Your task to perform on an android device: Empty the shopping cart on costco. Search for "bose quietcomfort 35" on costco, select the first entry, and add it to the cart. Image 0: 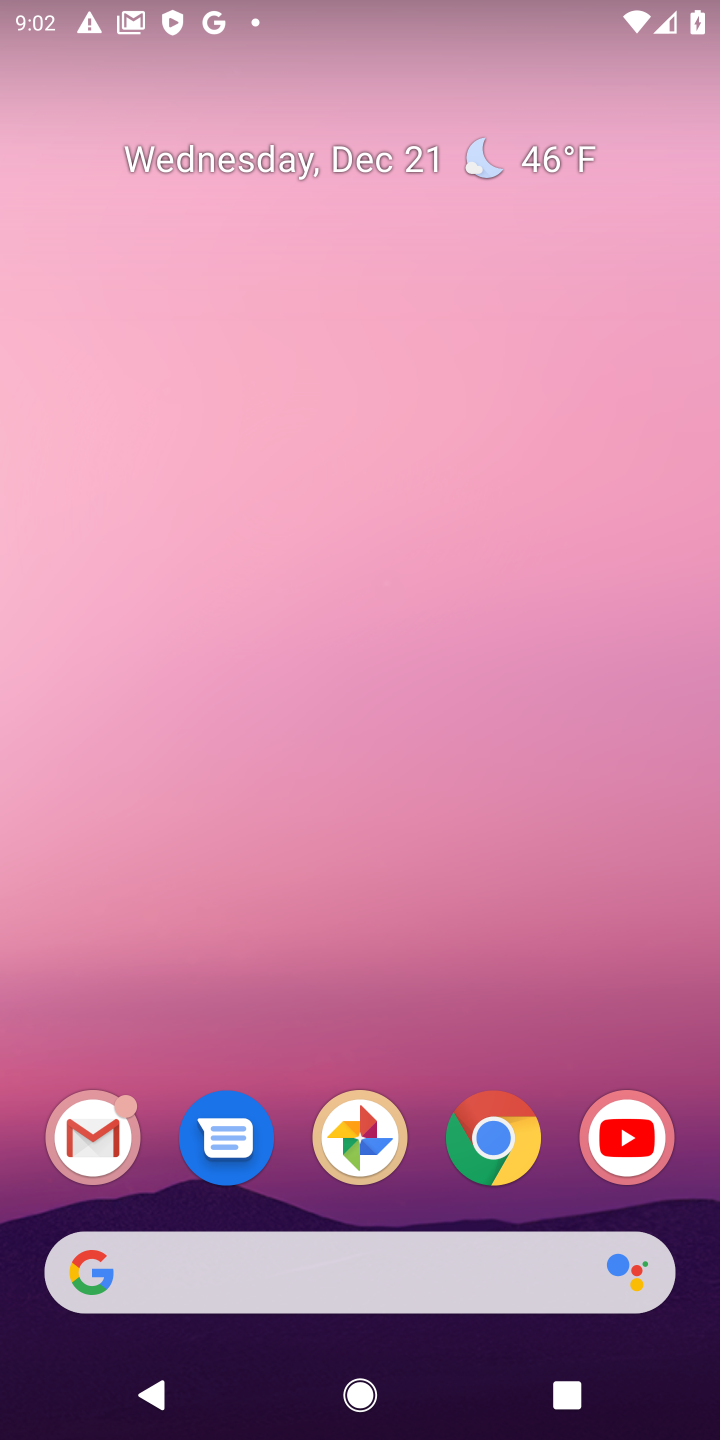
Step 0: click (484, 1138)
Your task to perform on an android device: Empty the shopping cart on costco. Search for "bose quietcomfort 35" on costco, select the first entry, and add it to the cart. Image 1: 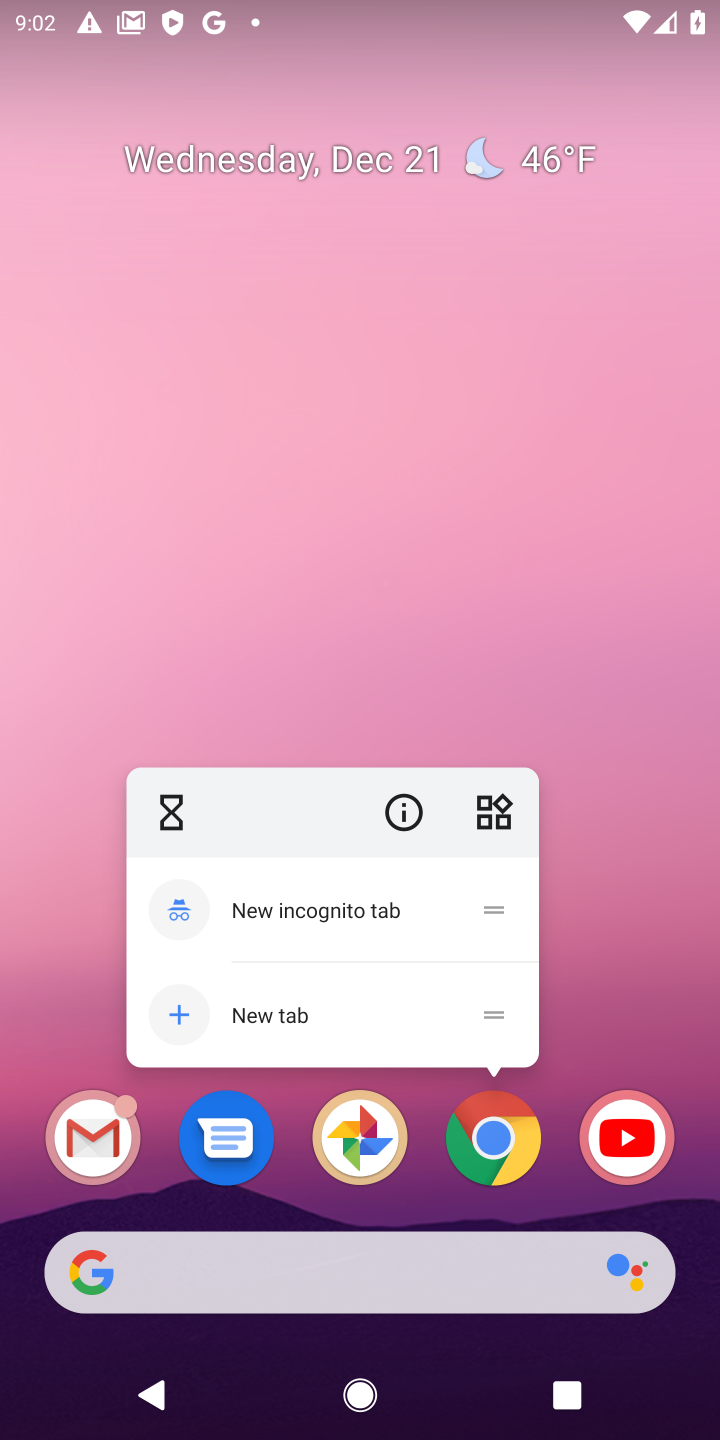
Step 1: click (484, 1138)
Your task to perform on an android device: Empty the shopping cart on costco. Search for "bose quietcomfort 35" on costco, select the first entry, and add it to the cart. Image 2: 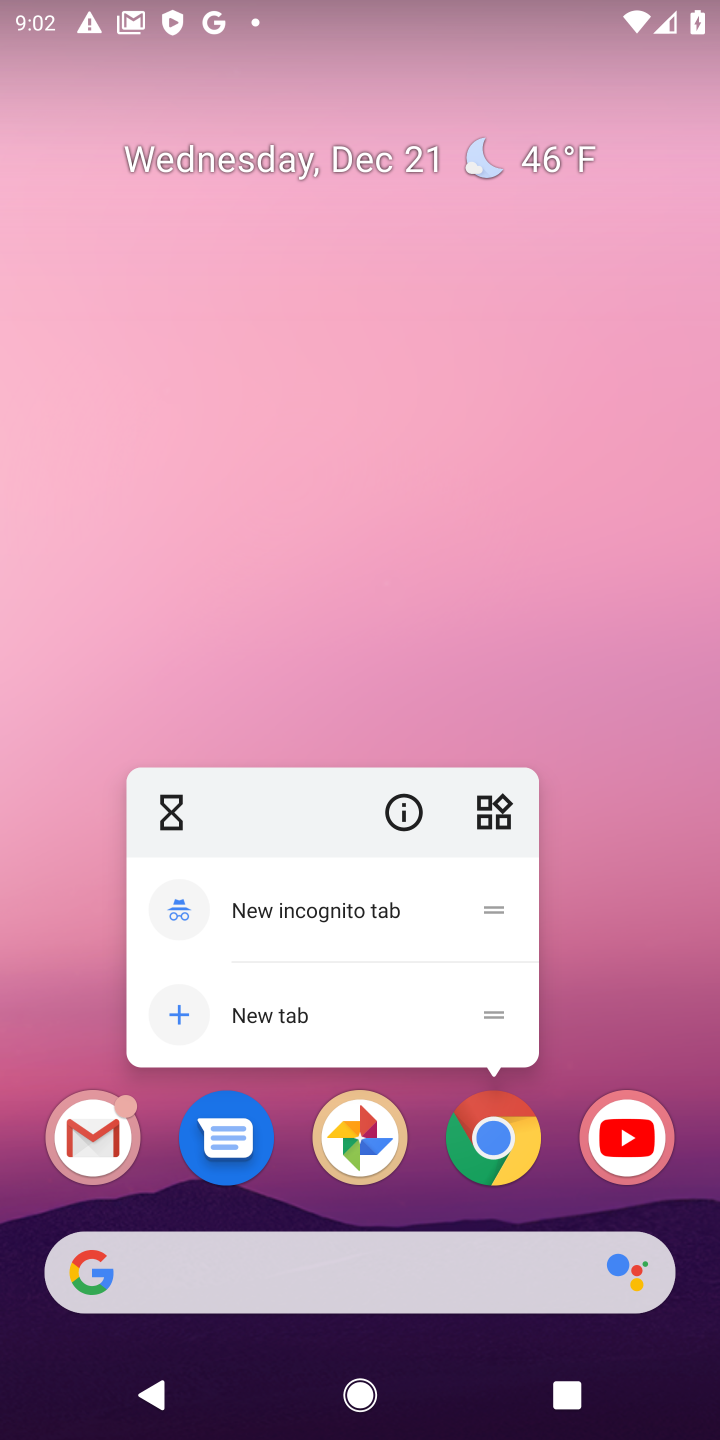
Step 2: click (484, 1138)
Your task to perform on an android device: Empty the shopping cart on costco. Search for "bose quietcomfort 35" on costco, select the first entry, and add it to the cart. Image 3: 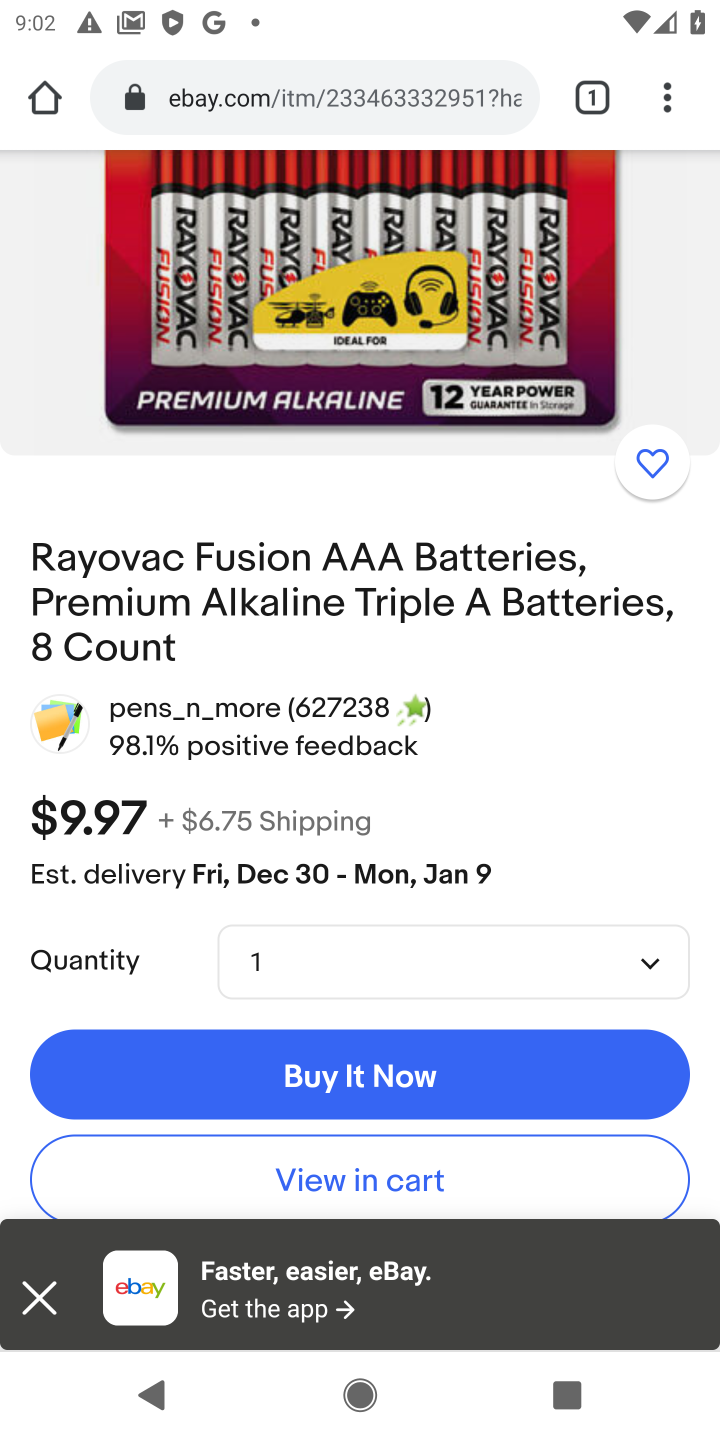
Step 3: click (261, 97)
Your task to perform on an android device: Empty the shopping cart on costco. Search for "bose quietcomfort 35" on costco, select the first entry, and add it to the cart. Image 4: 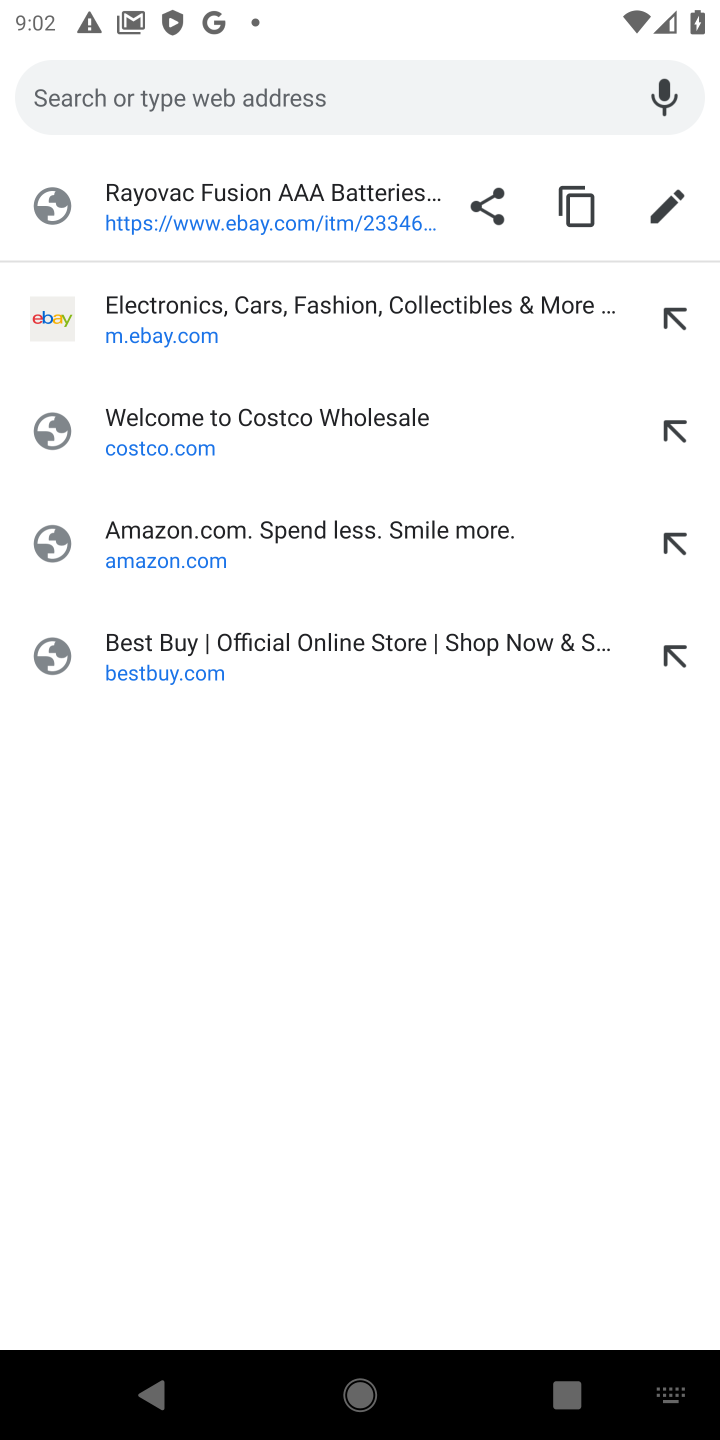
Step 4: click (143, 454)
Your task to perform on an android device: Empty the shopping cart on costco. Search for "bose quietcomfort 35" on costco, select the first entry, and add it to the cart. Image 5: 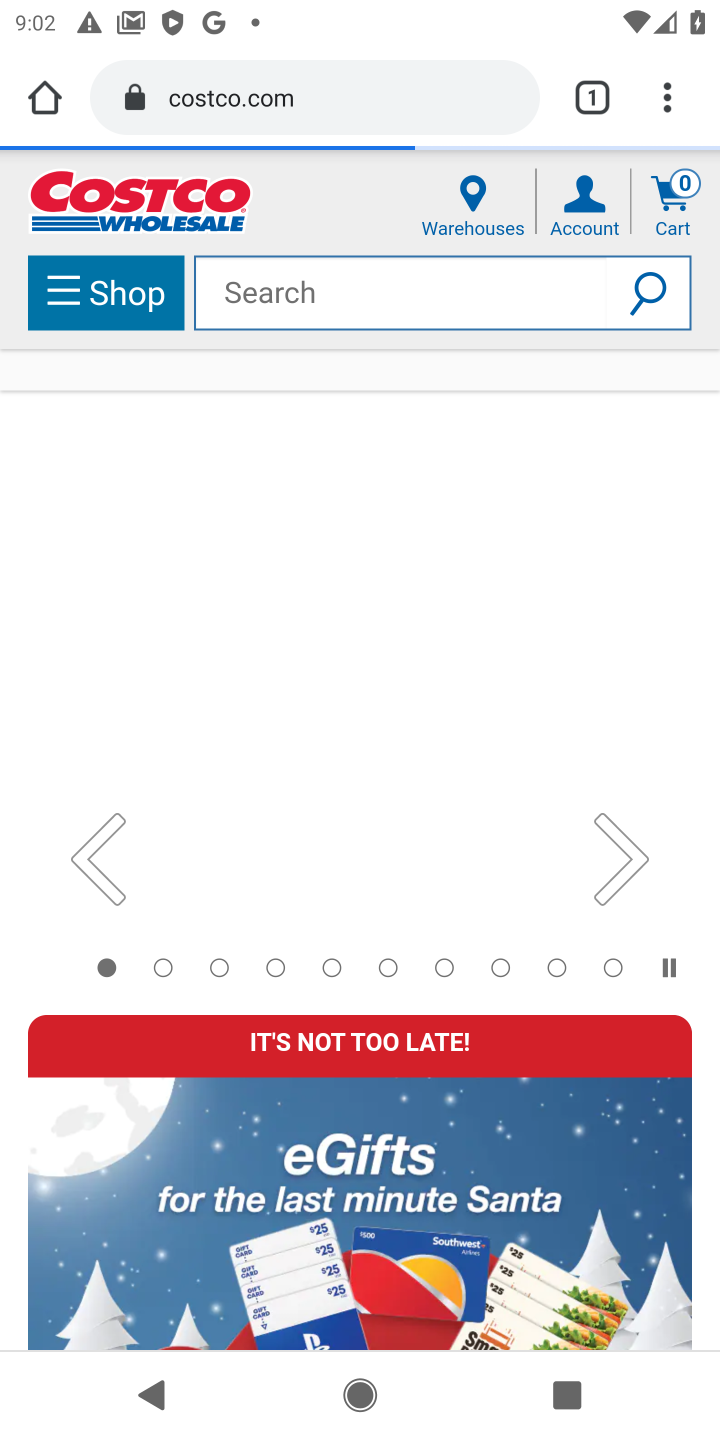
Step 5: click (673, 208)
Your task to perform on an android device: Empty the shopping cart on costco. Search for "bose quietcomfort 35" on costco, select the first entry, and add it to the cart. Image 6: 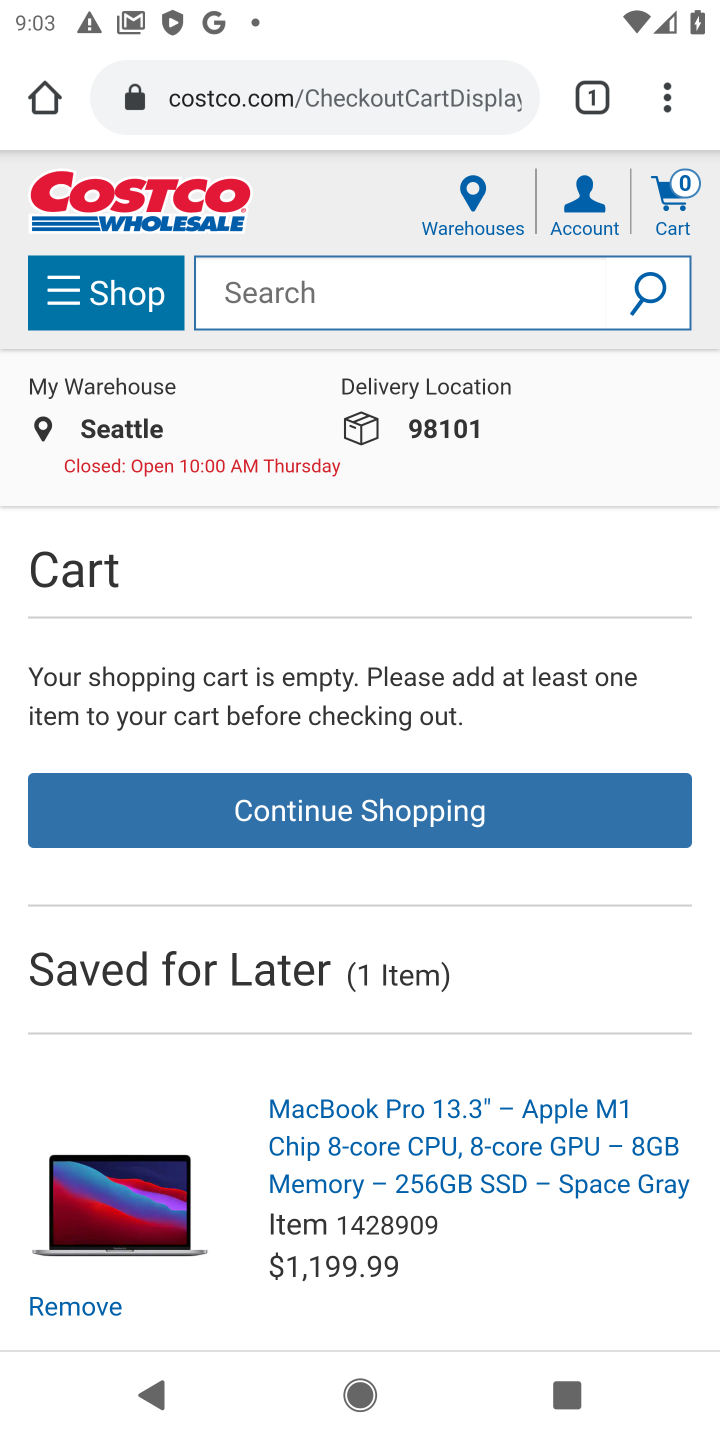
Step 6: click (242, 290)
Your task to perform on an android device: Empty the shopping cart on costco. Search for "bose quietcomfort 35" on costco, select the first entry, and add it to the cart. Image 7: 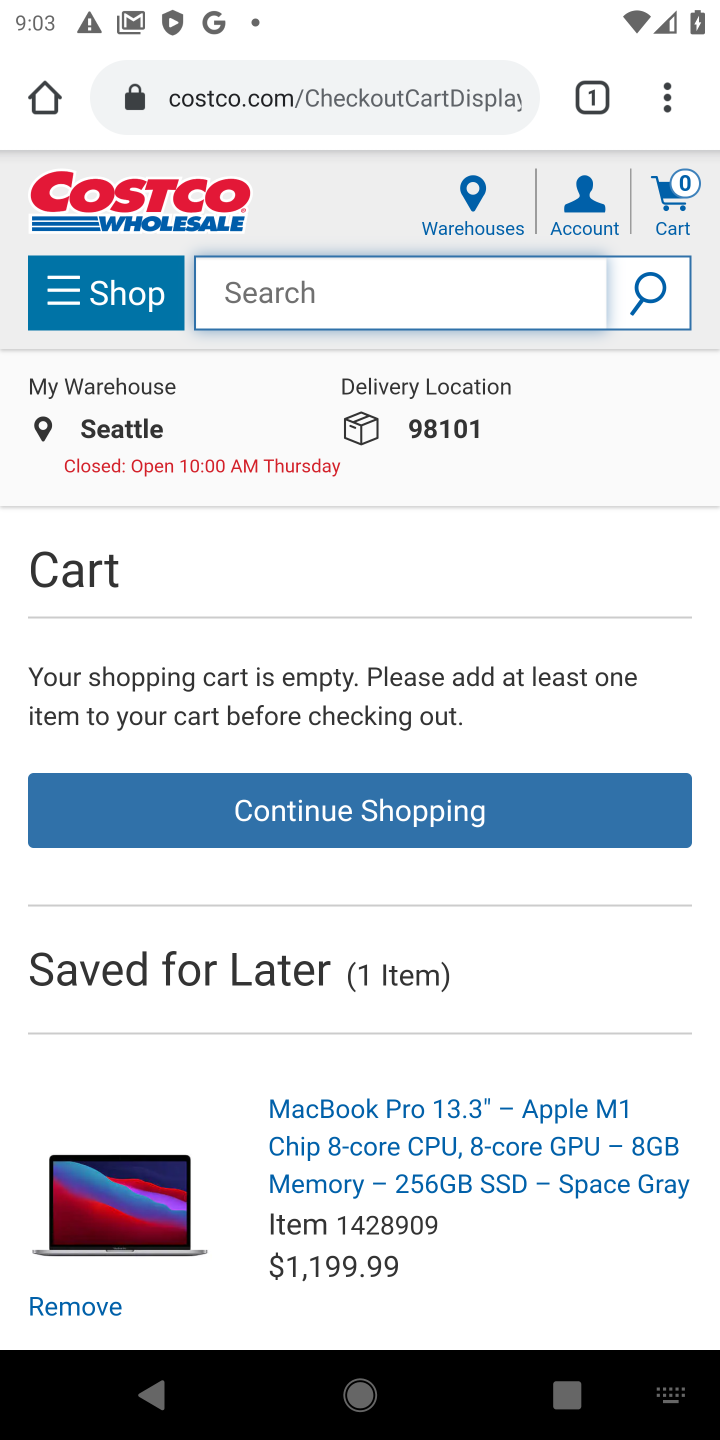
Step 7: type "bose quietcomfort 35"
Your task to perform on an android device: Empty the shopping cart on costco. Search for "bose quietcomfort 35" on costco, select the first entry, and add it to the cart. Image 8: 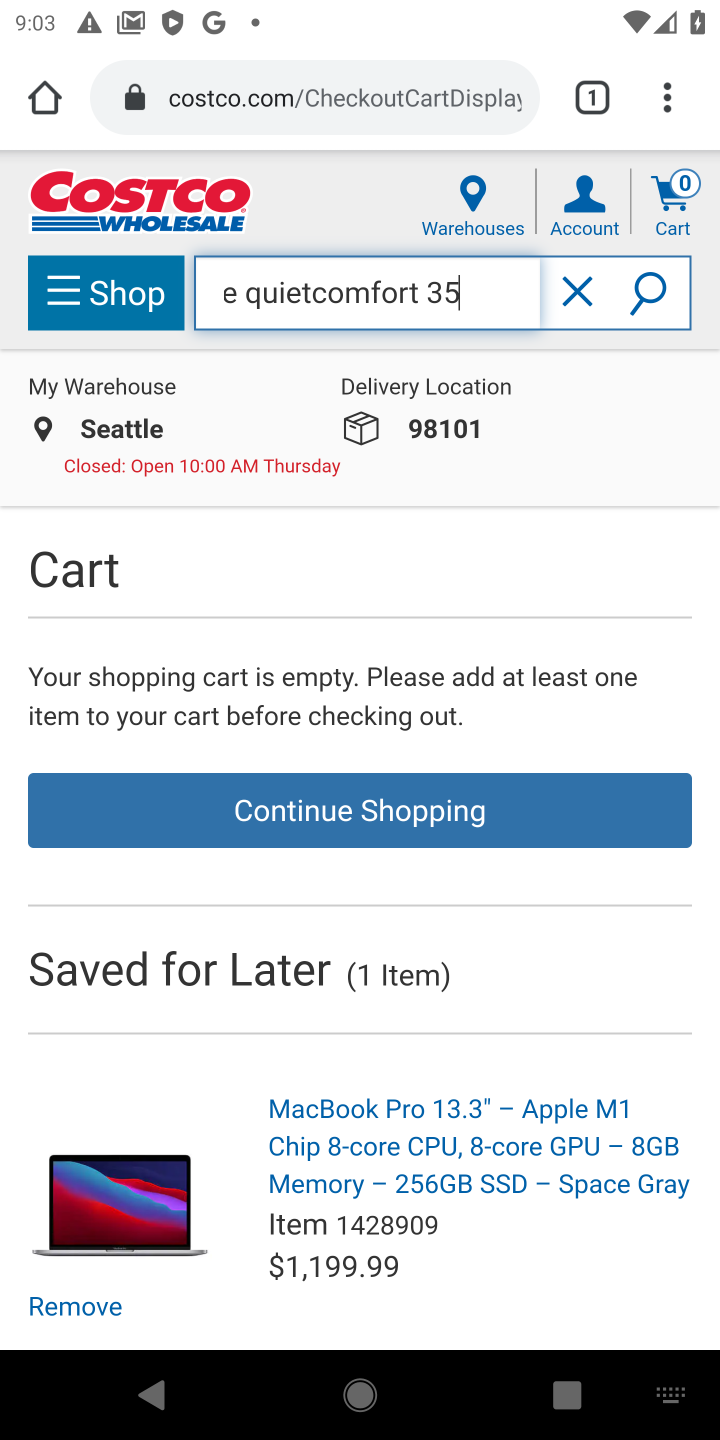
Step 8: click (648, 287)
Your task to perform on an android device: Empty the shopping cart on costco. Search for "bose quietcomfort 35" on costco, select the first entry, and add it to the cart. Image 9: 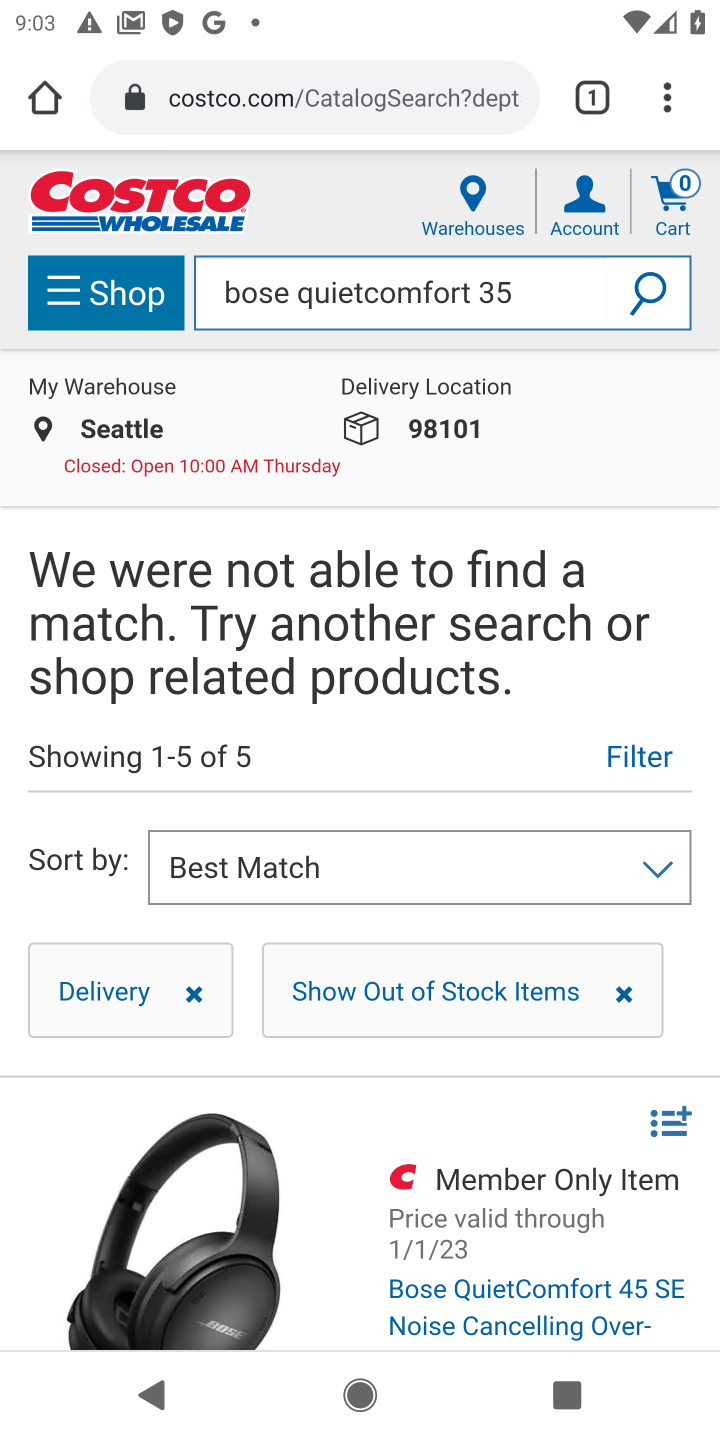
Step 9: task complete